Your task to perform on an android device: Search for sushi restaurants on Maps Image 0: 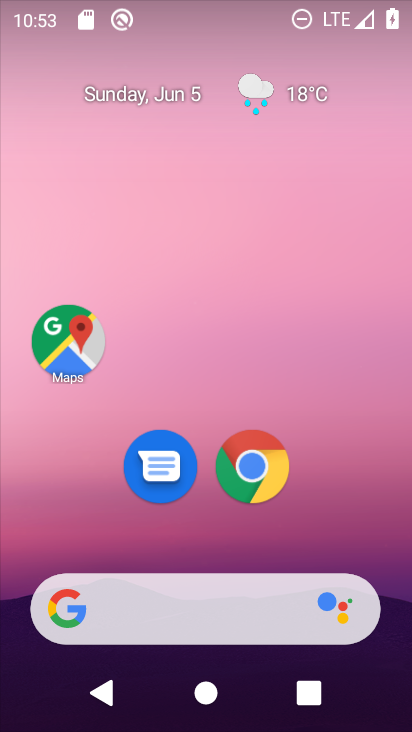
Step 0: drag from (371, 515) to (264, 0)
Your task to perform on an android device: Search for sushi restaurants on Maps Image 1: 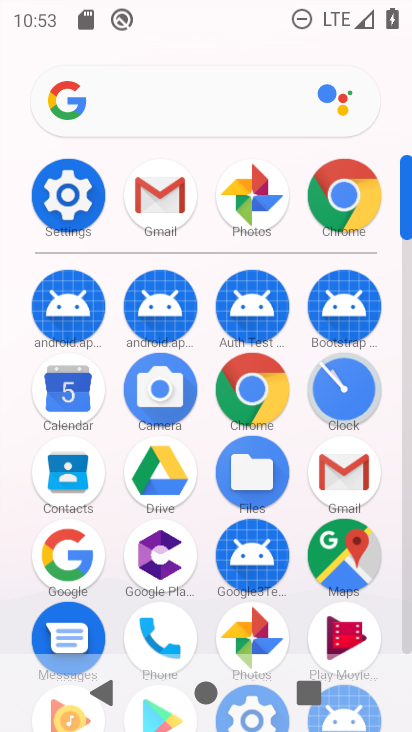
Step 1: drag from (14, 604) to (28, 272)
Your task to perform on an android device: Search for sushi restaurants on Maps Image 2: 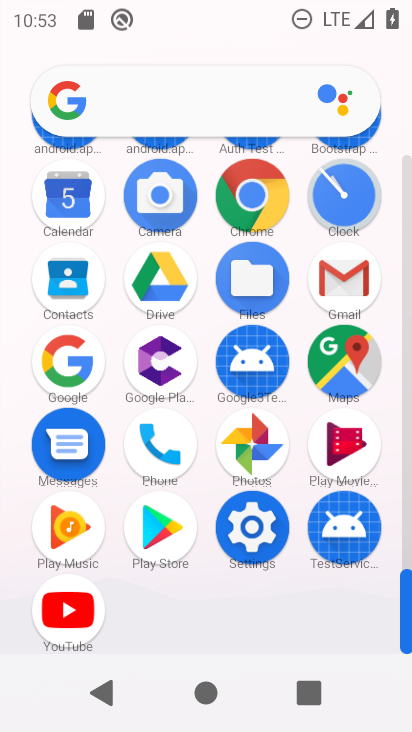
Step 2: click (343, 363)
Your task to perform on an android device: Search for sushi restaurants on Maps Image 3: 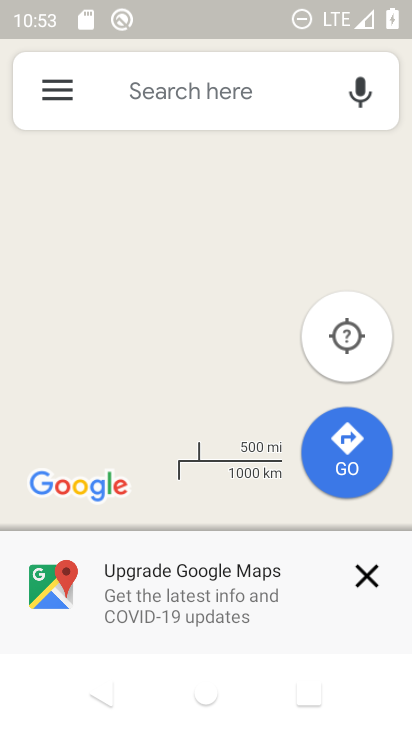
Step 3: click (245, 71)
Your task to perform on an android device: Search for sushi restaurants on Maps Image 4: 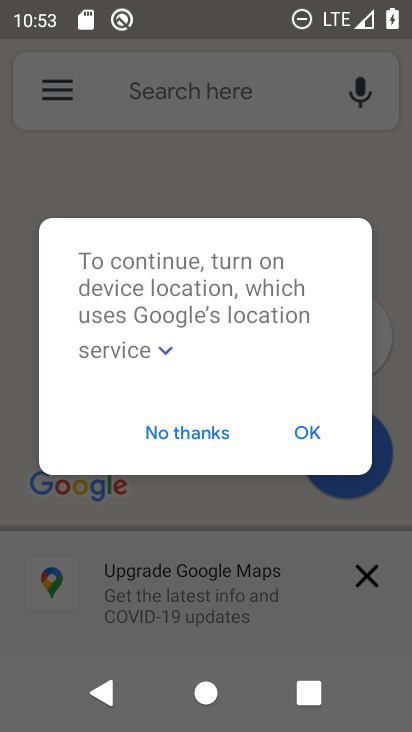
Step 4: click (298, 433)
Your task to perform on an android device: Search for sushi restaurants on Maps Image 5: 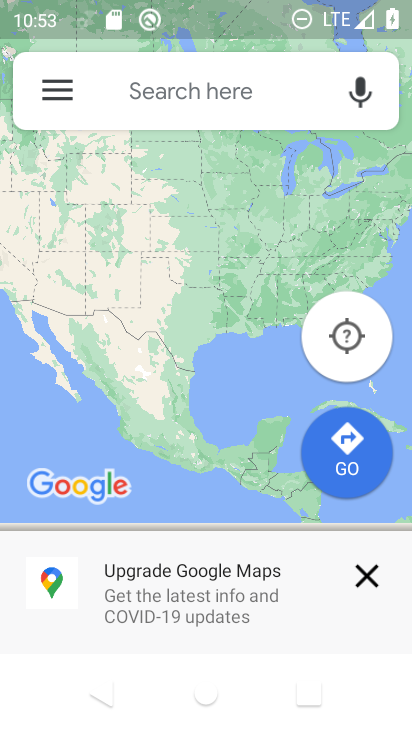
Step 5: click (265, 88)
Your task to perform on an android device: Search for sushi restaurants on Maps Image 6: 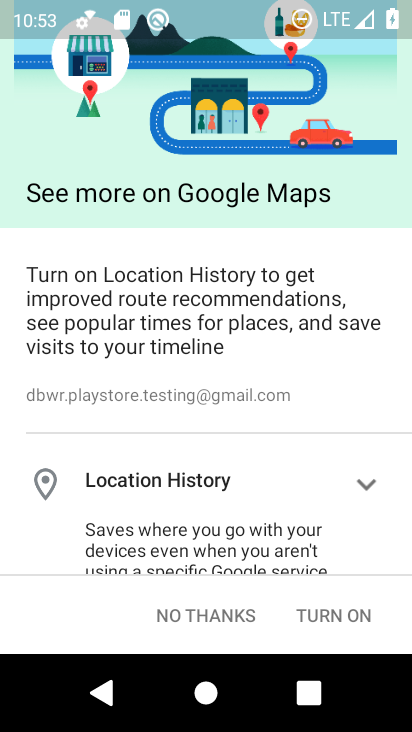
Step 6: click (310, 616)
Your task to perform on an android device: Search for sushi restaurants on Maps Image 7: 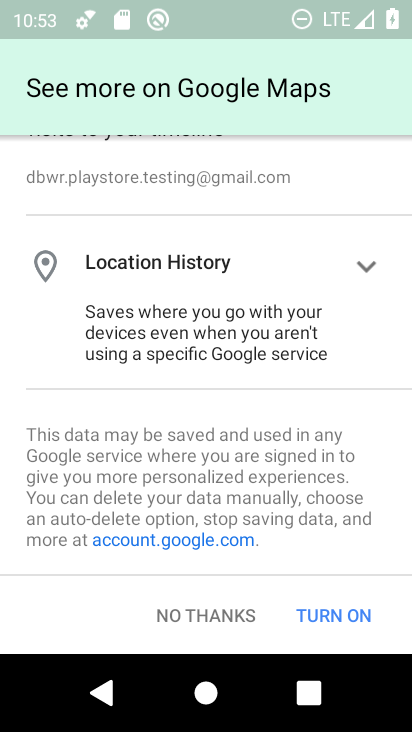
Step 7: click (310, 616)
Your task to perform on an android device: Search for sushi restaurants on Maps Image 8: 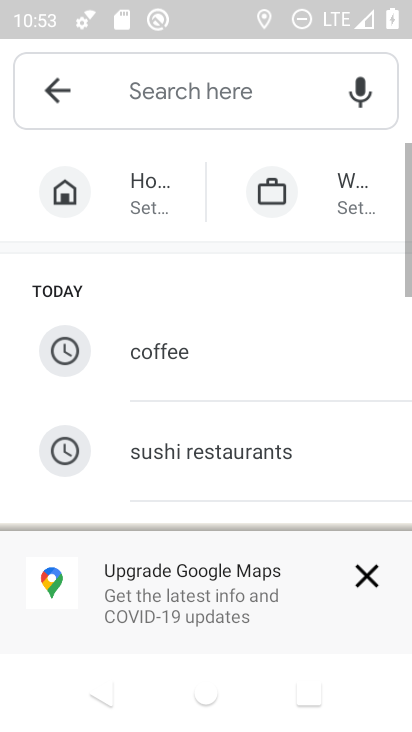
Step 8: click (244, 73)
Your task to perform on an android device: Search for sushi restaurants on Maps Image 9: 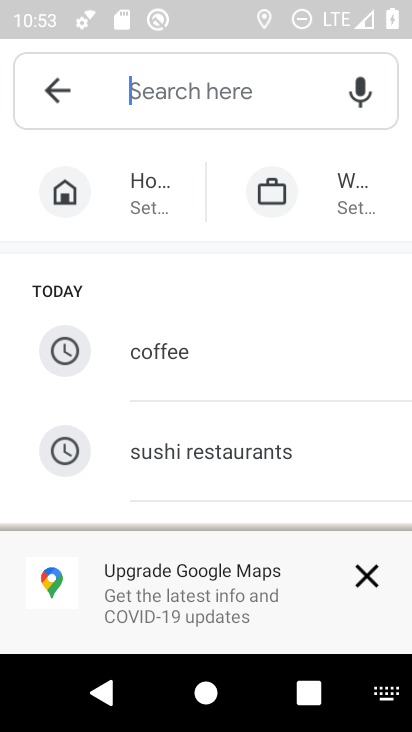
Step 9: click (250, 445)
Your task to perform on an android device: Search for sushi restaurants on Maps Image 10: 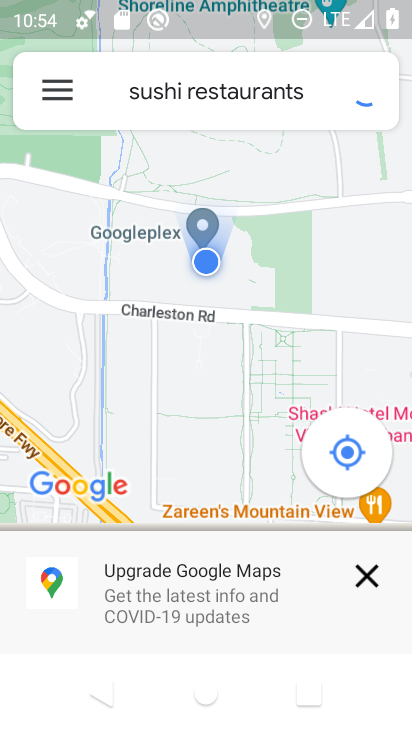
Step 10: task complete